Your task to perform on an android device: set default search engine in the chrome app Image 0: 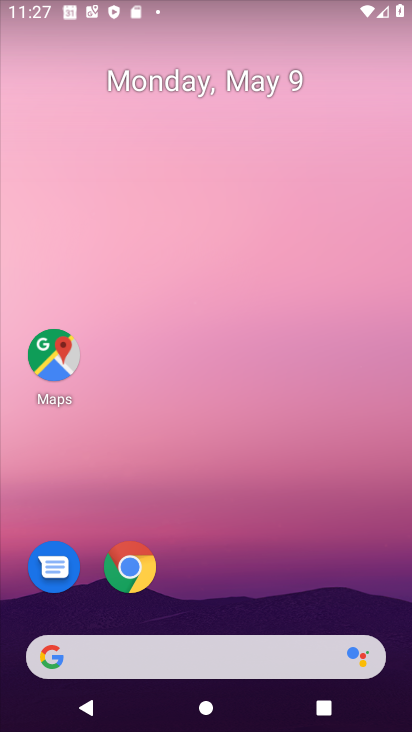
Step 0: click (140, 581)
Your task to perform on an android device: set default search engine in the chrome app Image 1: 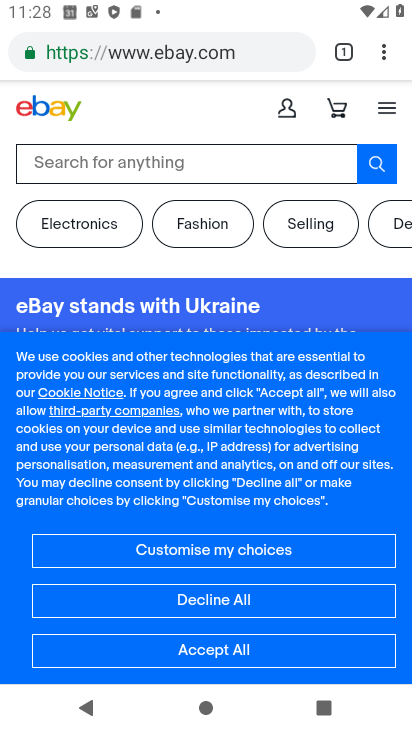
Step 1: drag from (381, 55) to (234, 602)
Your task to perform on an android device: set default search engine in the chrome app Image 2: 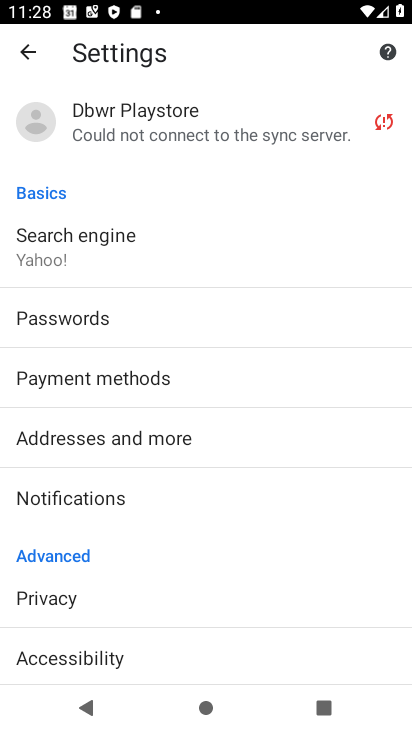
Step 2: drag from (119, 580) to (78, 39)
Your task to perform on an android device: set default search engine in the chrome app Image 3: 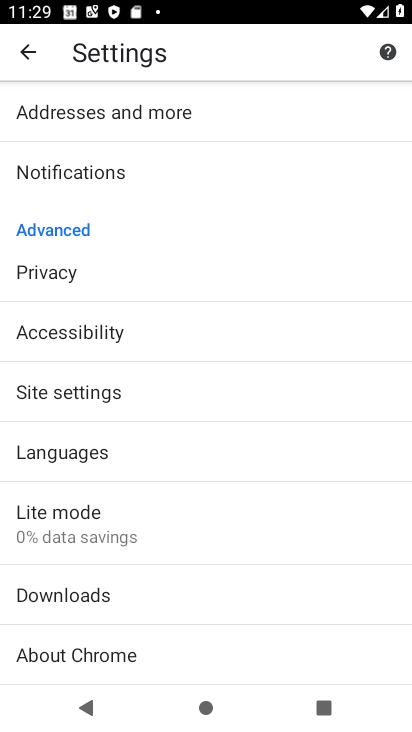
Step 3: drag from (80, 178) to (116, 484)
Your task to perform on an android device: set default search engine in the chrome app Image 4: 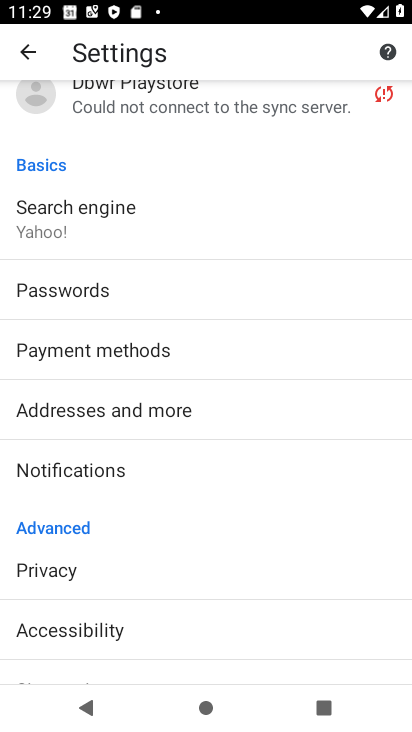
Step 4: click (85, 218)
Your task to perform on an android device: set default search engine in the chrome app Image 5: 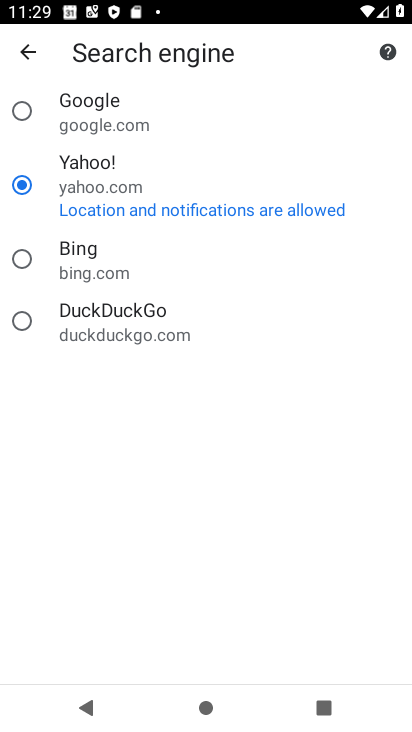
Step 5: click (110, 323)
Your task to perform on an android device: set default search engine in the chrome app Image 6: 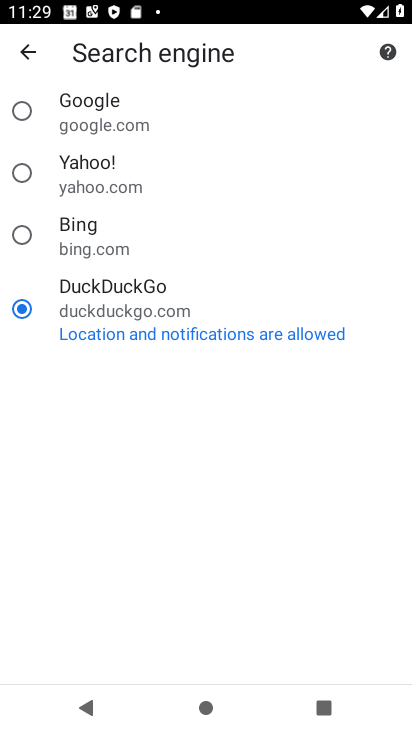
Step 6: task complete